Your task to perform on an android device: all mails in gmail Image 0: 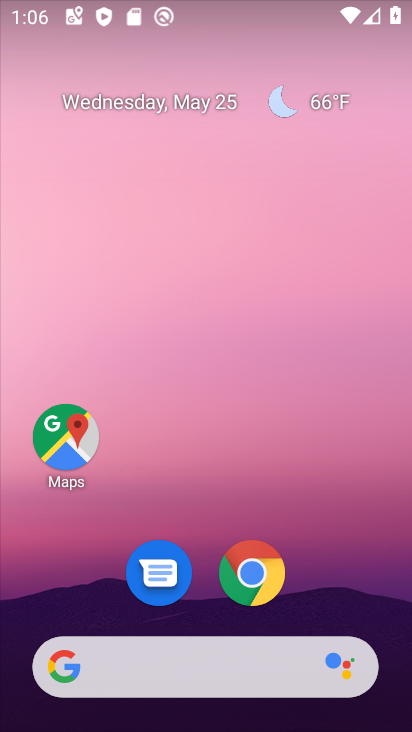
Step 0: drag from (401, 622) to (324, 106)
Your task to perform on an android device: all mails in gmail Image 1: 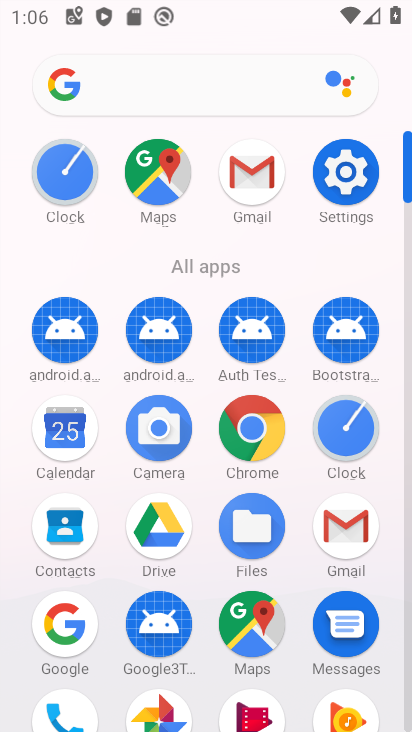
Step 1: click (405, 630)
Your task to perform on an android device: all mails in gmail Image 2: 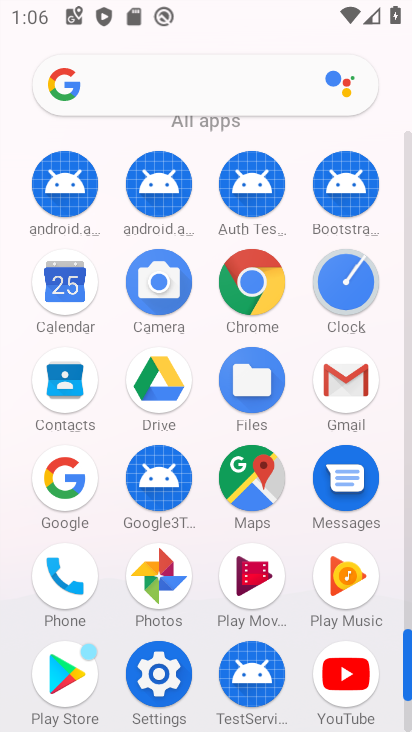
Step 2: click (347, 382)
Your task to perform on an android device: all mails in gmail Image 3: 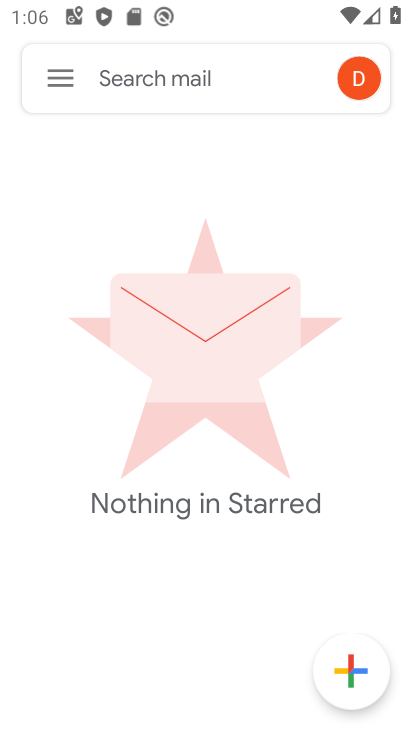
Step 3: click (46, 74)
Your task to perform on an android device: all mails in gmail Image 4: 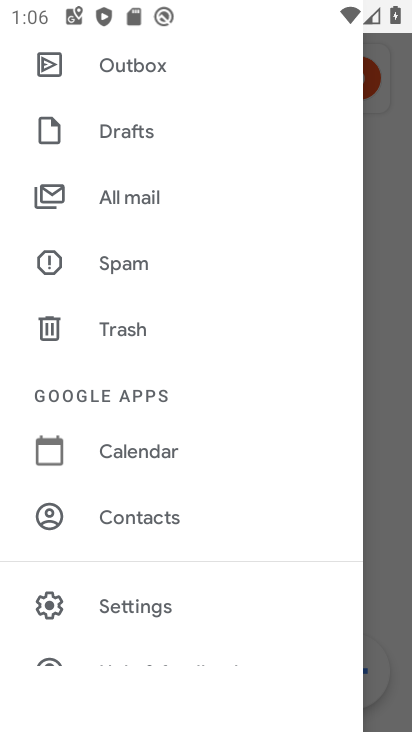
Step 4: click (120, 200)
Your task to perform on an android device: all mails in gmail Image 5: 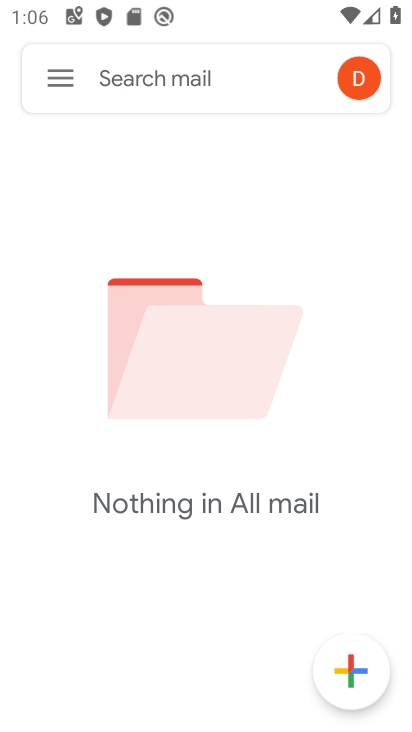
Step 5: task complete